Your task to perform on an android device: turn notification dots off Image 0: 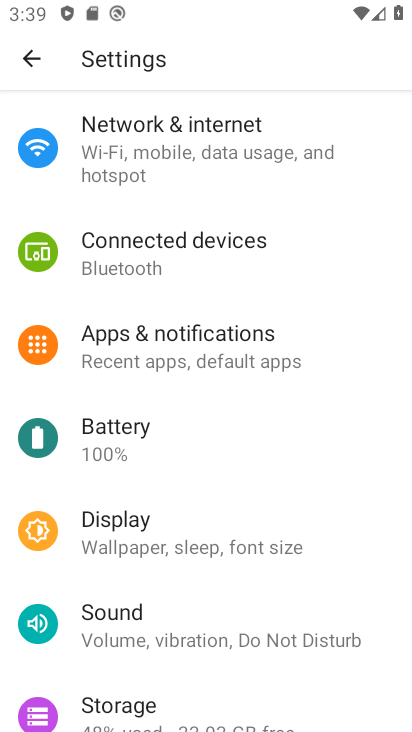
Step 0: click (186, 352)
Your task to perform on an android device: turn notification dots off Image 1: 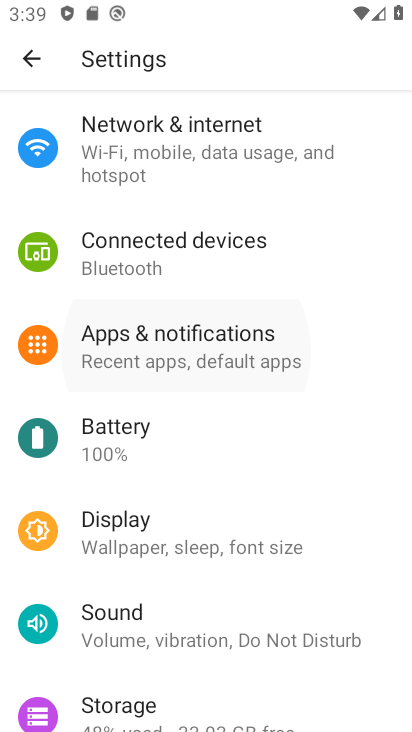
Step 1: click (186, 352)
Your task to perform on an android device: turn notification dots off Image 2: 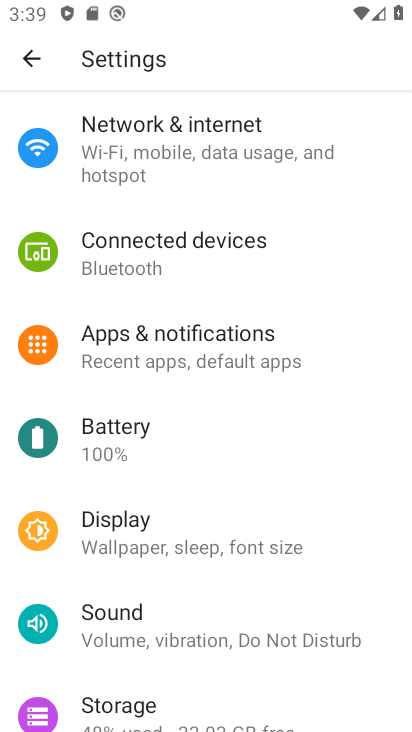
Step 2: click (187, 351)
Your task to perform on an android device: turn notification dots off Image 3: 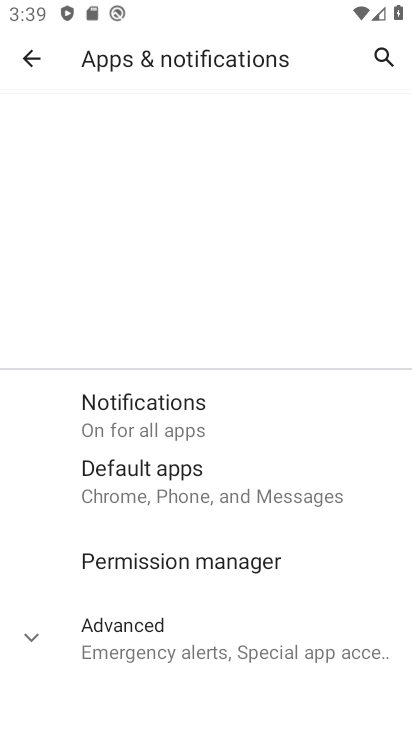
Step 3: click (187, 351)
Your task to perform on an android device: turn notification dots off Image 4: 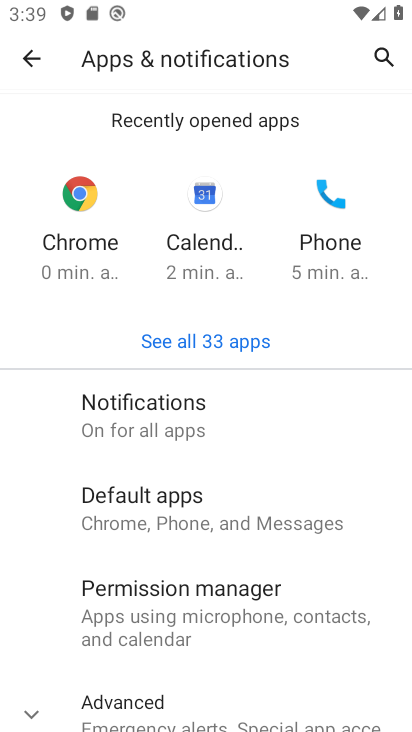
Step 4: drag from (199, 550) to (196, 284)
Your task to perform on an android device: turn notification dots off Image 5: 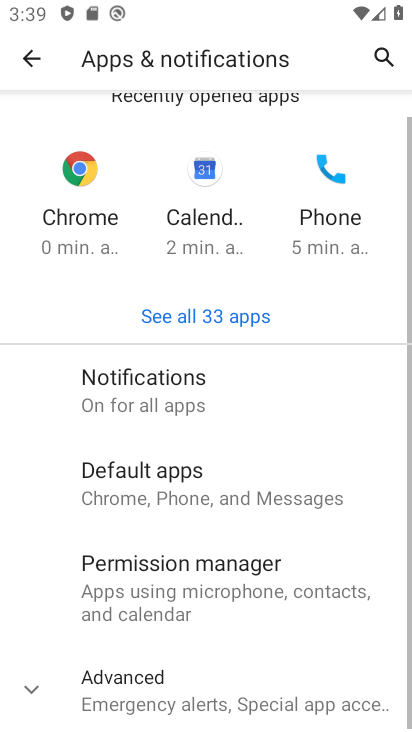
Step 5: drag from (217, 469) to (220, 114)
Your task to perform on an android device: turn notification dots off Image 6: 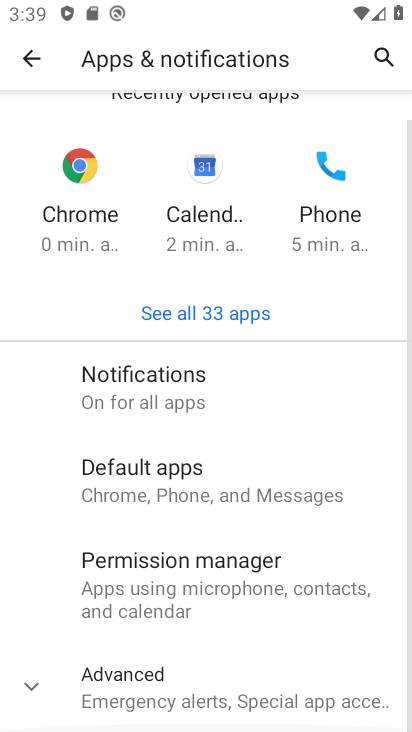
Step 6: drag from (216, 522) to (212, 94)
Your task to perform on an android device: turn notification dots off Image 7: 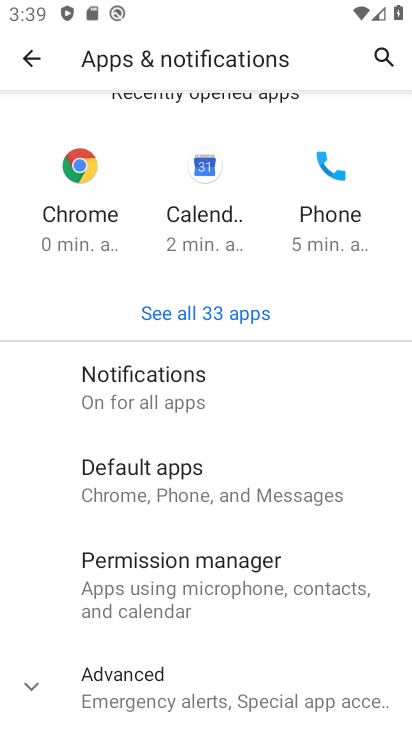
Step 7: click (141, 367)
Your task to perform on an android device: turn notification dots off Image 8: 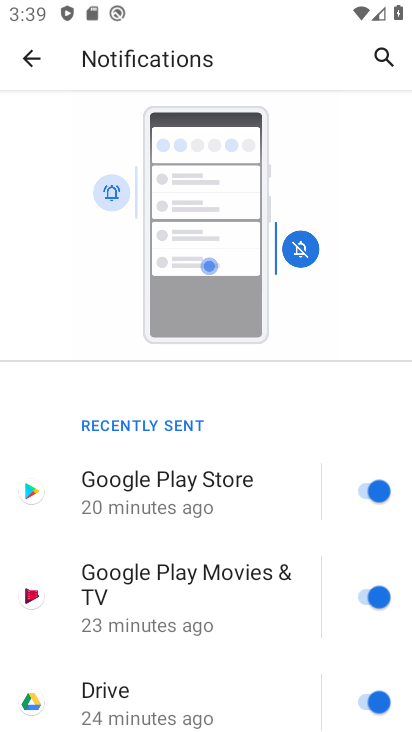
Step 8: drag from (254, 561) to (145, 110)
Your task to perform on an android device: turn notification dots off Image 9: 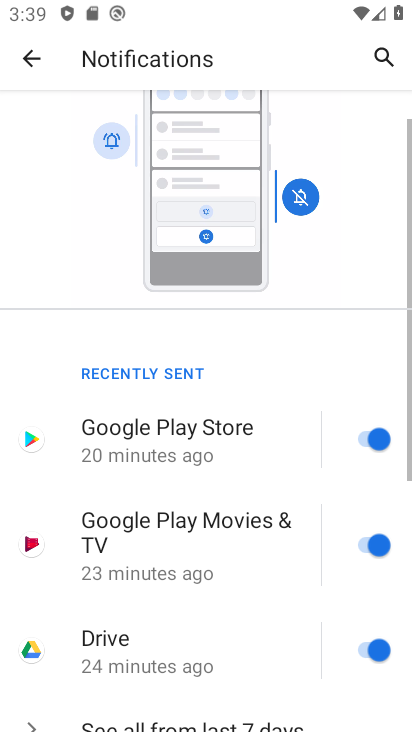
Step 9: drag from (48, 215) to (32, 147)
Your task to perform on an android device: turn notification dots off Image 10: 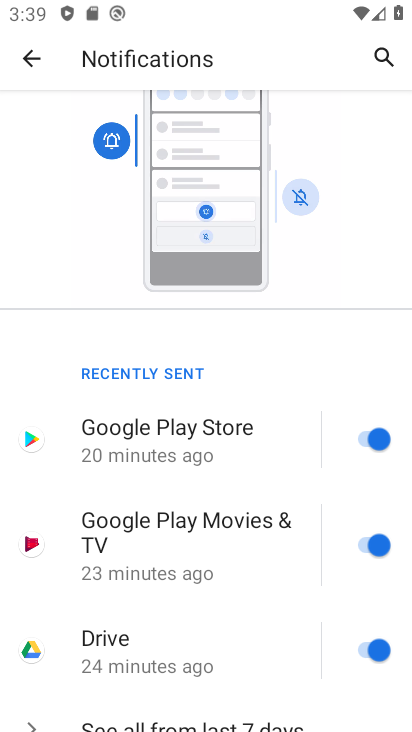
Step 10: drag from (155, 525) to (182, 113)
Your task to perform on an android device: turn notification dots off Image 11: 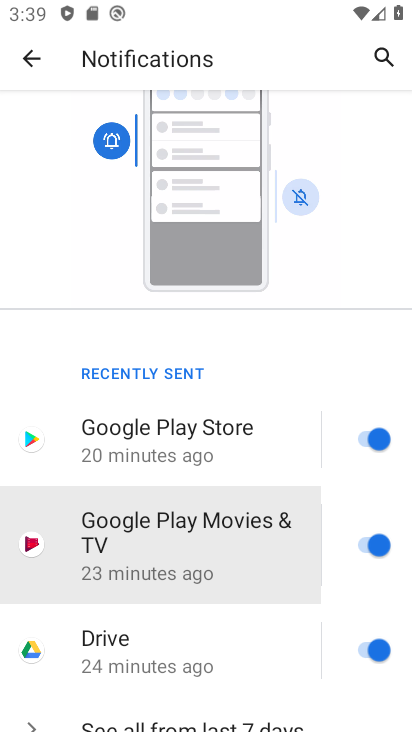
Step 11: drag from (100, 559) to (133, 129)
Your task to perform on an android device: turn notification dots off Image 12: 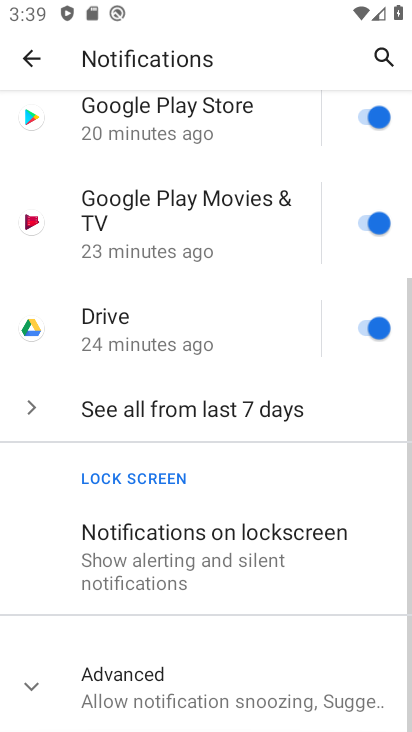
Step 12: drag from (157, 461) to (282, 0)
Your task to perform on an android device: turn notification dots off Image 13: 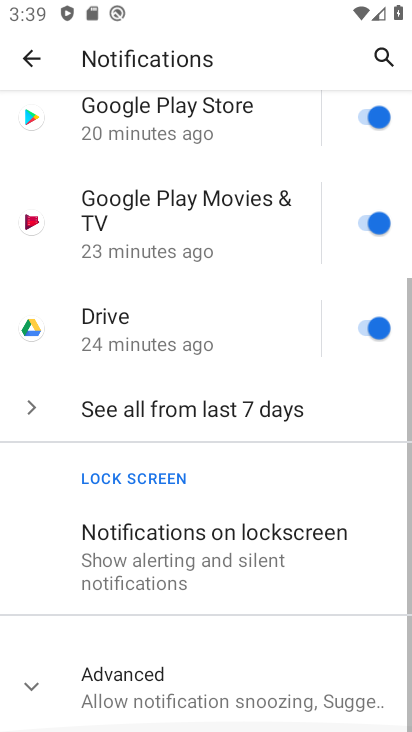
Step 13: drag from (110, 372) to (137, 155)
Your task to perform on an android device: turn notification dots off Image 14: 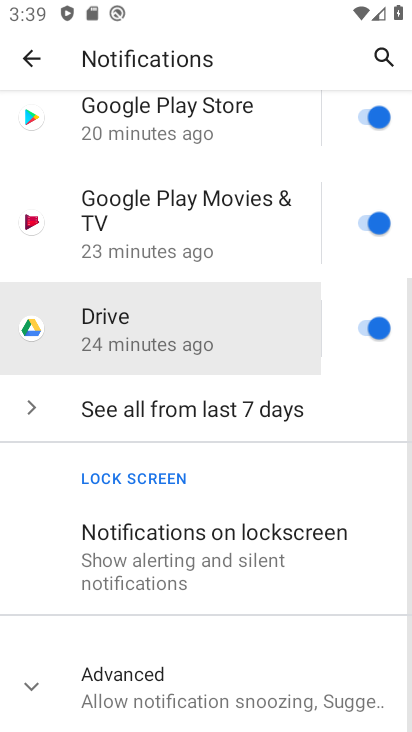
Step 14: drag from (215, 346) to (228, 480)
Your task to perform on an android device: turn notification dots off Image 15: 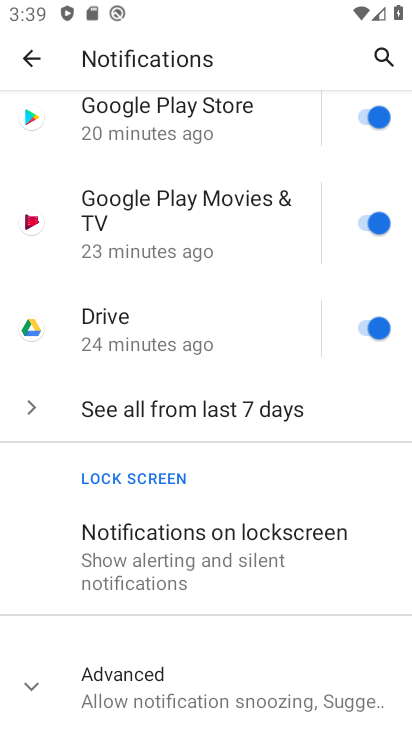
Step 15: click (145, 679)
Your task to perform on an android device: turn notification dots off Image 16: 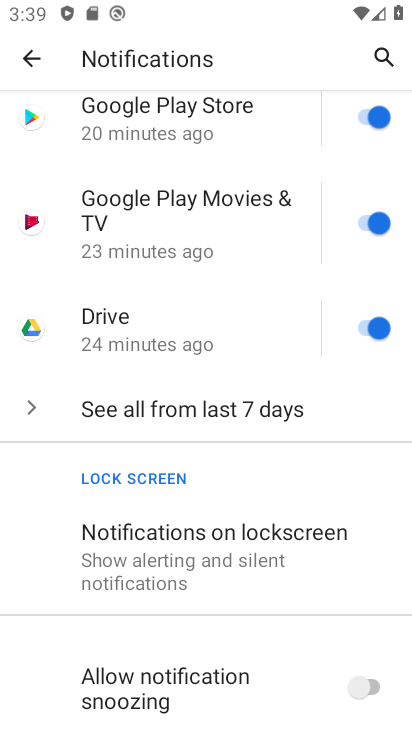
Step 16: drag from (237, 691) to (190, 238)
Your task to perform on an android device: turn notification dots off Image 17: 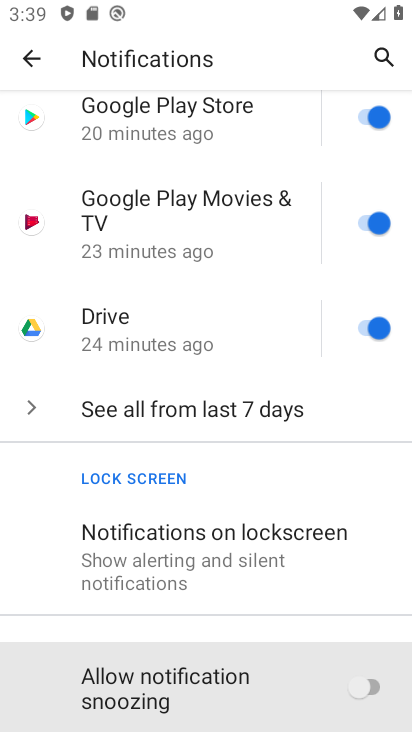
Step 17: drag from (200, 432) to (143, 14)
Your task to perform on an android device: turn notification dots off Image 18: 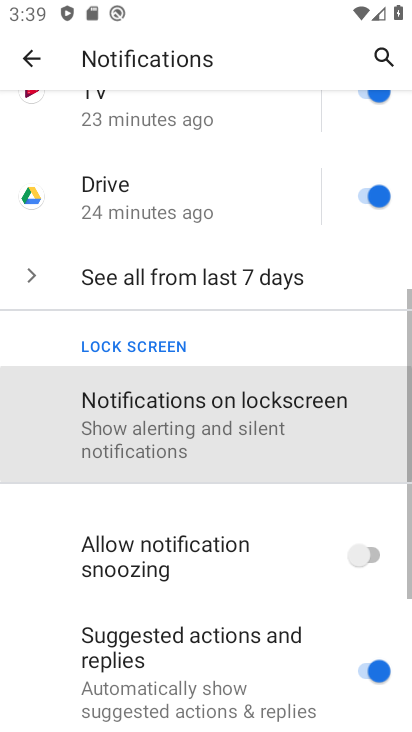
Step 18: drag from (190, 319) to (166, 91)
Your task to perform on an android device: turn notification dots off Image 19: 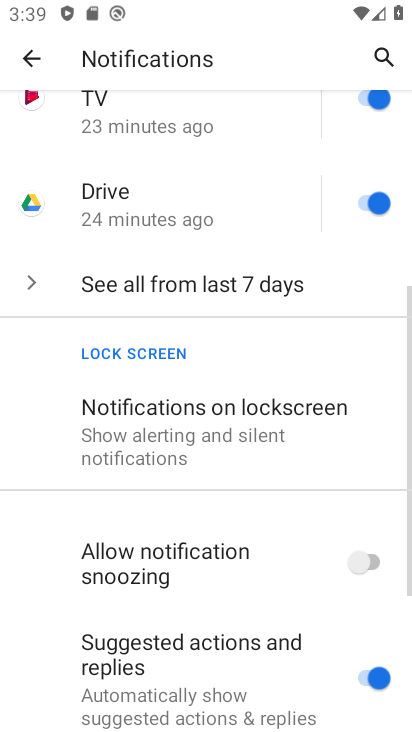
Step 19: drag from (225, 470) to (147, 49)
Your task to perform on an android device: turn notification dots off Image 20: 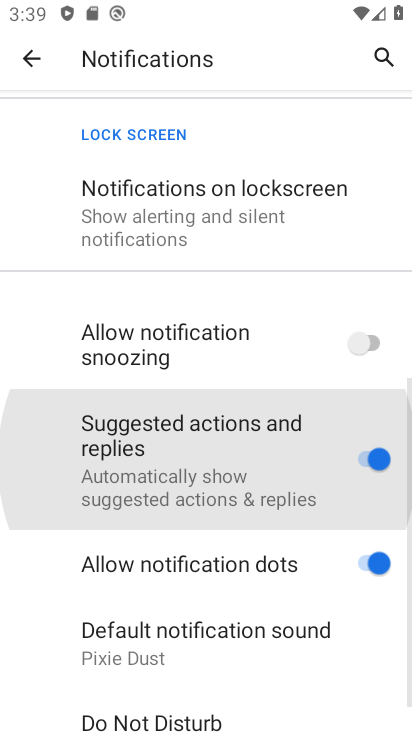
Step 20: drag from (201, 531) to (128, 35)
Your task to perform on an android device: turn notification dots off Image 21: 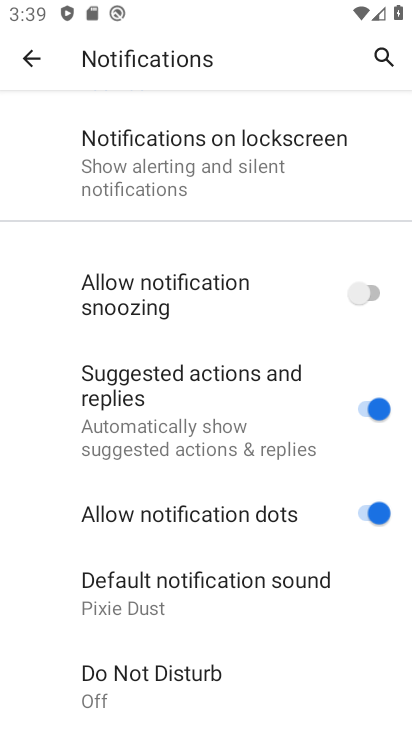
Step 21: click (370, 507)
Your task to perform on an android device: turn notification dots off Image 22: 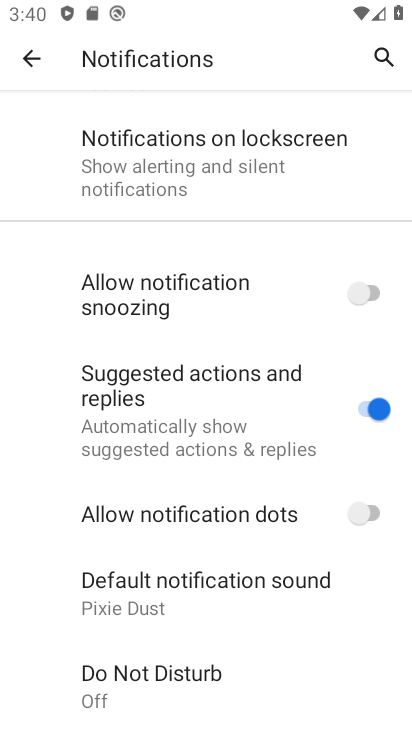
Step 22: task complete